Your task to perform on an android device: Open settings Image 0: 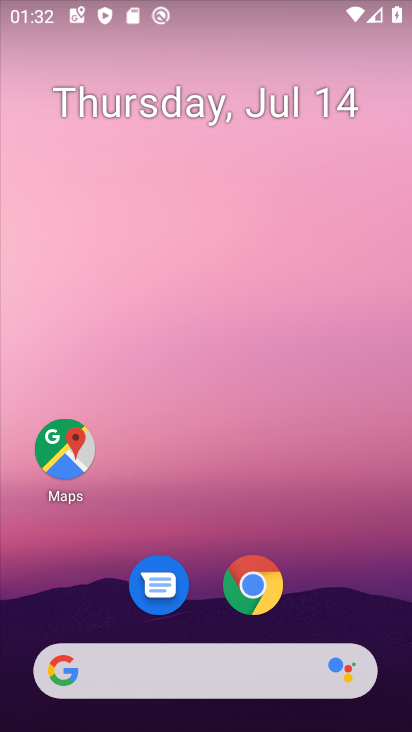
Step 0: drag from (345, 561) to (322, 53)
Your task to perform on an android device: Open settings Image 1: 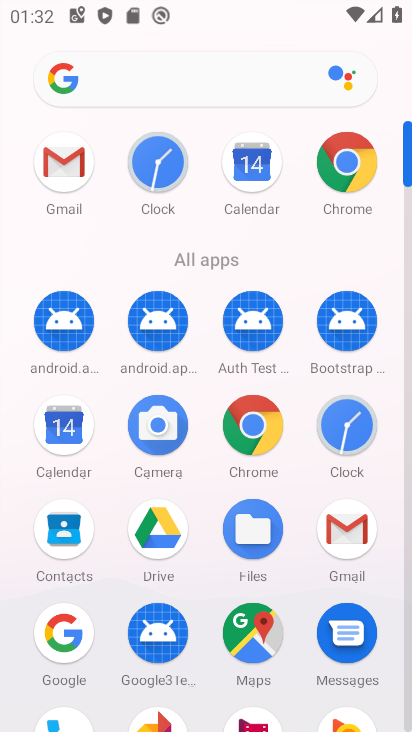
Step 1: drag from (202, 595) to (218, 260)
Your task to perform on an android device: Open settings Image 2: 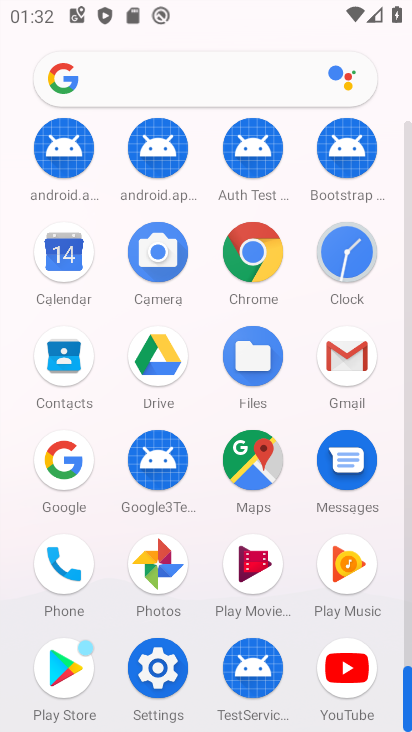
Step 2: click (153, 653)
Your task to perform on an android device: Open settings Image 3: 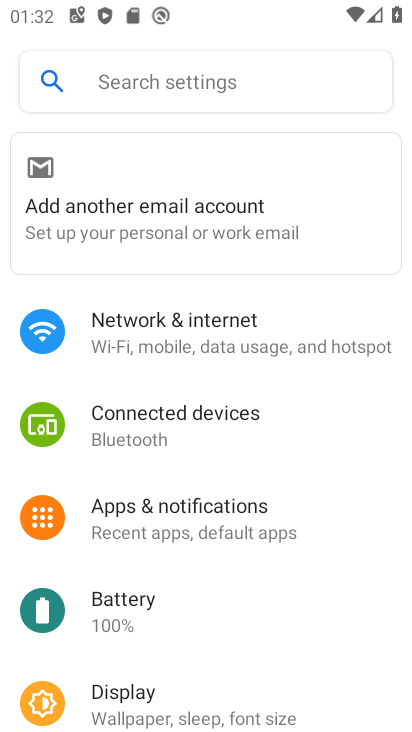
Step 3: task complete